Your task to perform on an android device: Open calendar and show me the fourth week of next month Image 0: 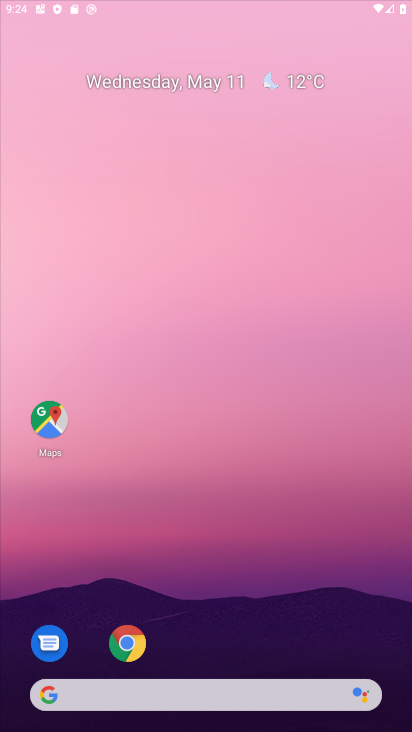
Step 0: press back button
Your task to perform on an android device: Open calendar and show me the fourth week of next month Image 1: 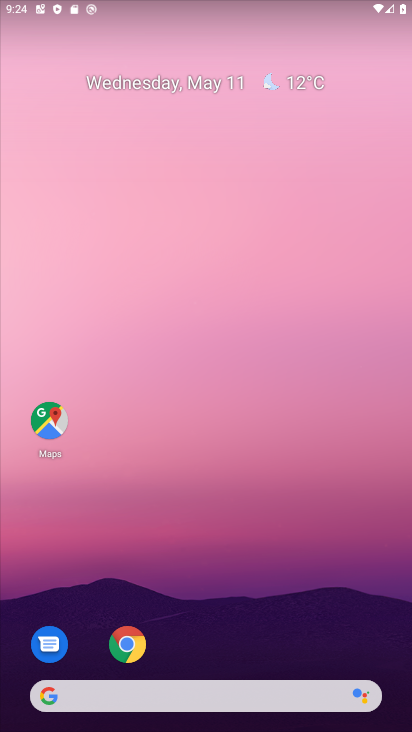
Step 1: drag from (239, 628) to (242, 101)
Your task to perform on an android device: Open calendar and show me the fourth week of next month Image 2: 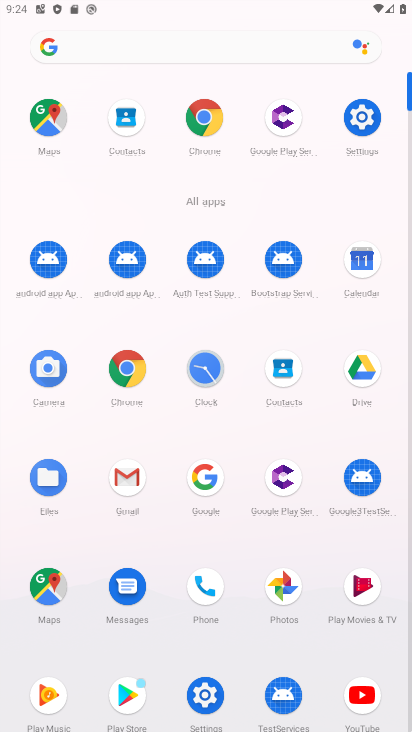
Step 2: click (361, 256)
Your task to perform on an android device: Open calendar and show me the fourth week of next month Image 3: 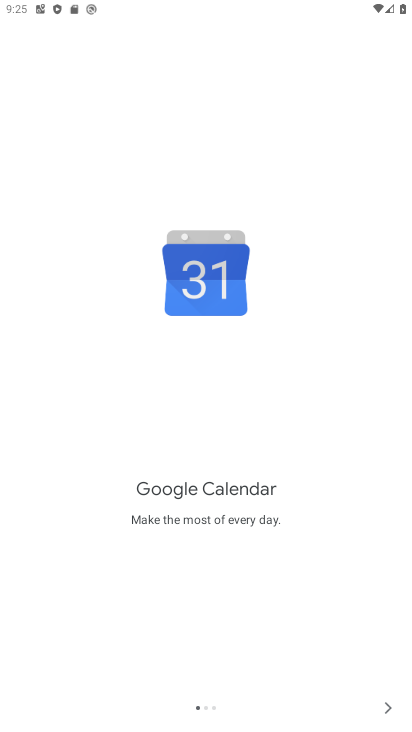
Step 3: click (381, 717)
Your task to perform on an android device: Open calendar and show me the fourth week of next month Image 4: 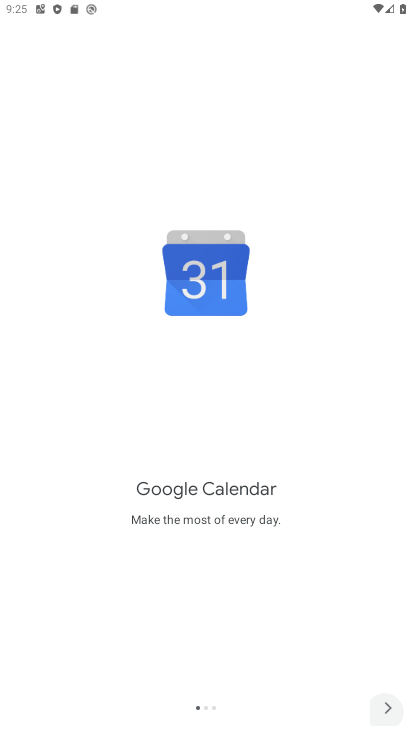
Step 4: click (381, 717)
Your task to perform on an android device: Open calendar and show me the fourth week of next month Image 5: 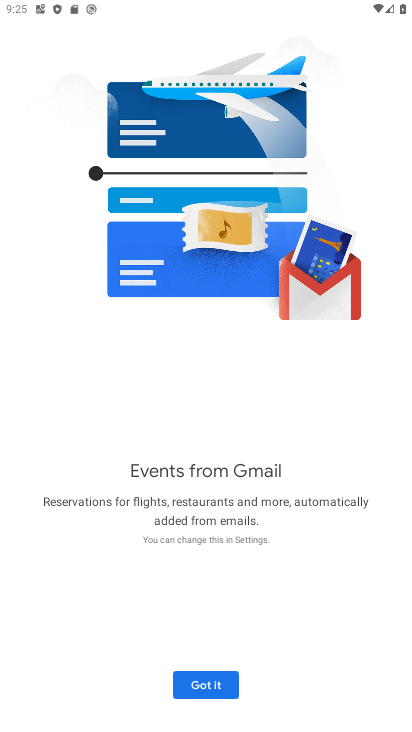
Step 5: click (221, 677)
Your task to perform on an android device: Open calendar and show me the fourth week of next month Image 6: 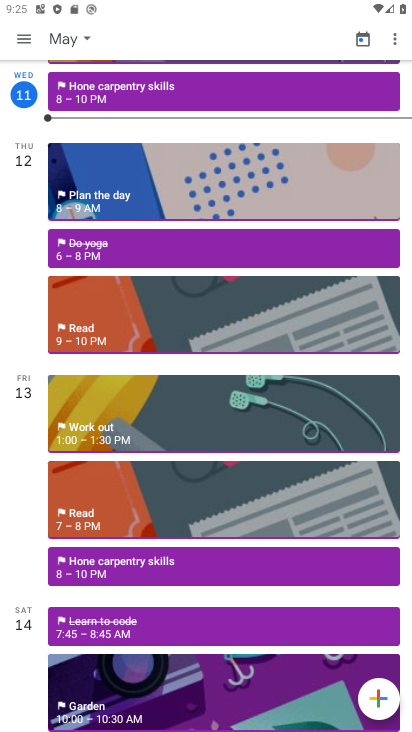
Step 6: click (73, 47)
Your task to perform on an android device: Open calendar and show me the fourth week of next month Image 7: 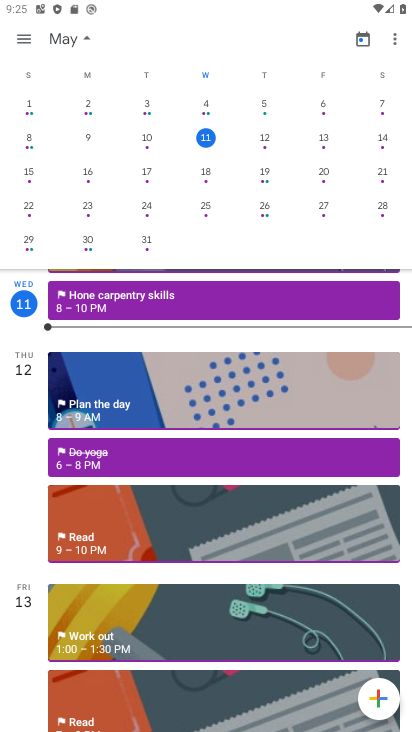
Step 7: drag from (391, 224) to (0, 206)
Your task to perform on an android device: Open calendar and show me the fourth week of next month Image 8: 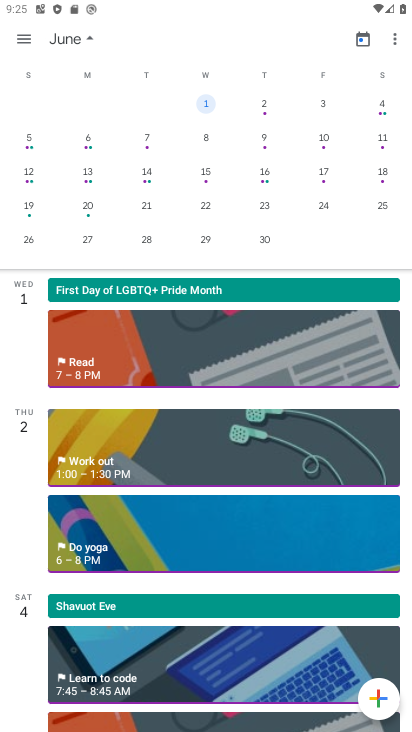
Step 8: click (213, 235)
Your task to perform on an android device: Open calendar and show me the fourth week of next month Image 9: 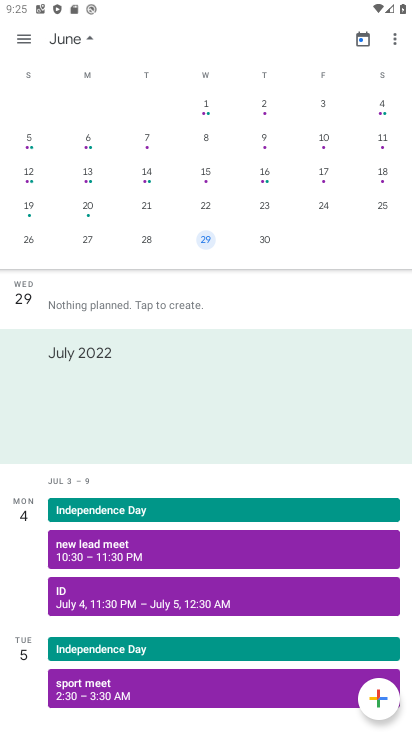
Step 9: task complete